Your task to perform on an android device: set the stopwatch Image 0: 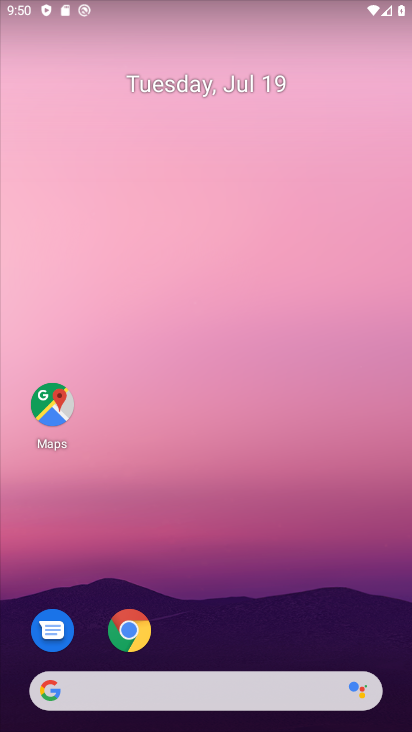
Step 0: drag from (23, 247) to (247, 233)
Your task to perform on an android device: set the stopwatch Image 1: 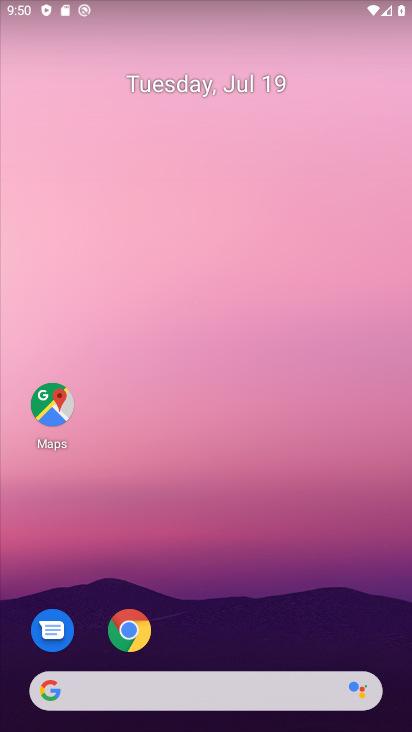
Step 1: drag from (72, 495) to (284, 31)
Your task to perform on an android device: set the stopwatch Image 2: 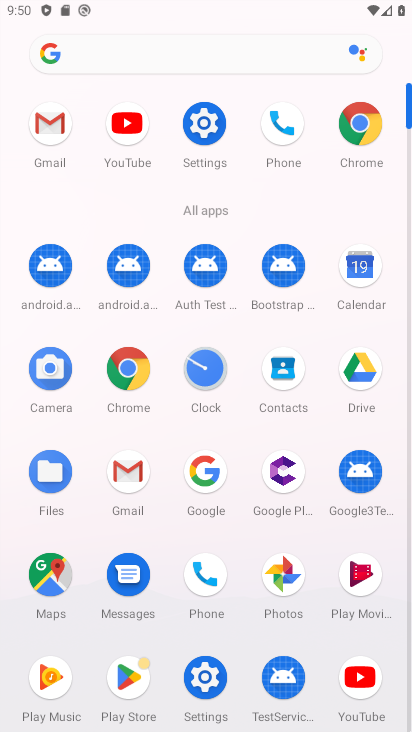
Step 2: click (210, 383)
Your task to perform on an android device: set the stopwatch Image 3: 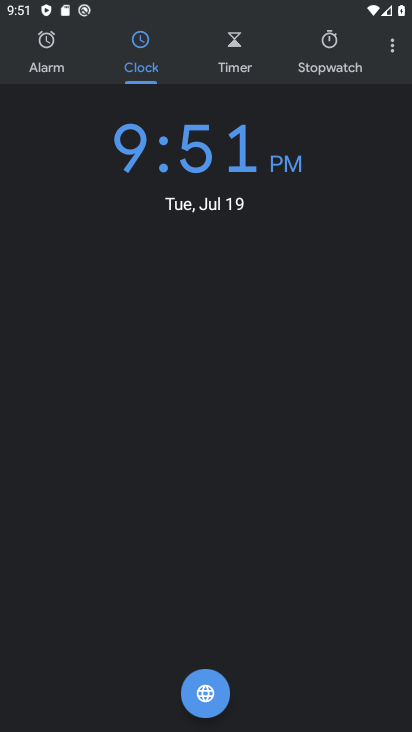
Step 3: click (341, 61)
Your task to perform on an android device: set the stopwatch Image 4: 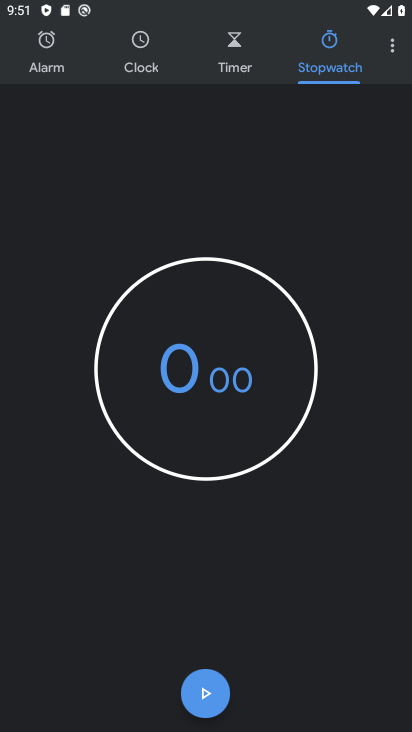
Step 4: click (213, 703)
Your task to perform on an android device: set the stopwatch Image 5: 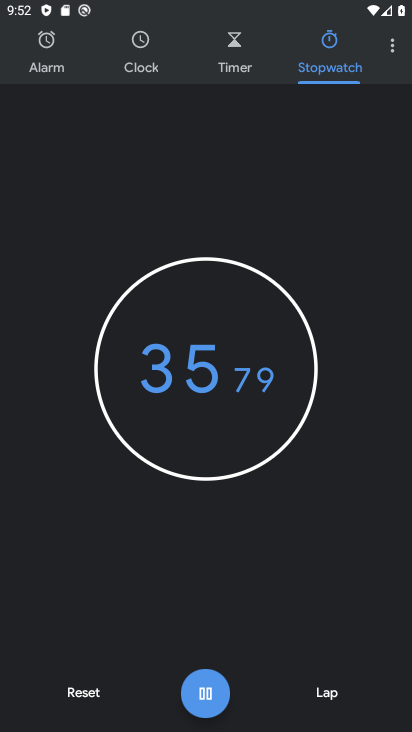
Step 5: task complete